Your task to perform on an android device: Check the weather Image 0: 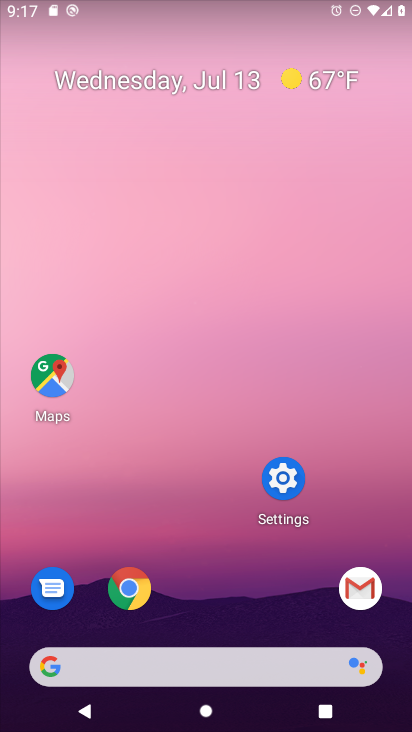
Step 0: click (186, 664)
Your task to perform on an android device: Check the weather Image 1: 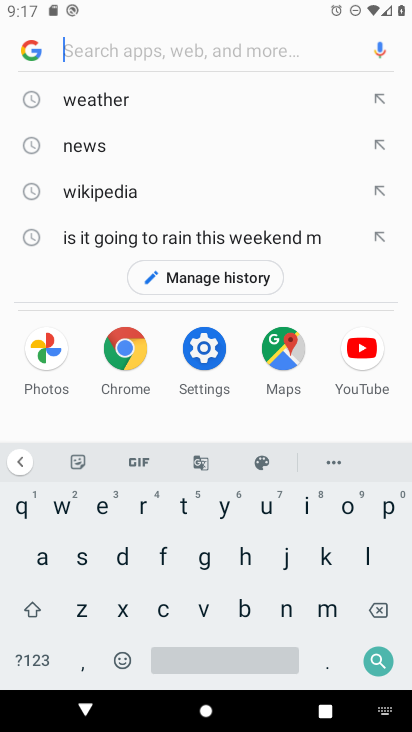
Step 1: click (98, 88)
Your task to perform on an android device: Check the weather Image 2: 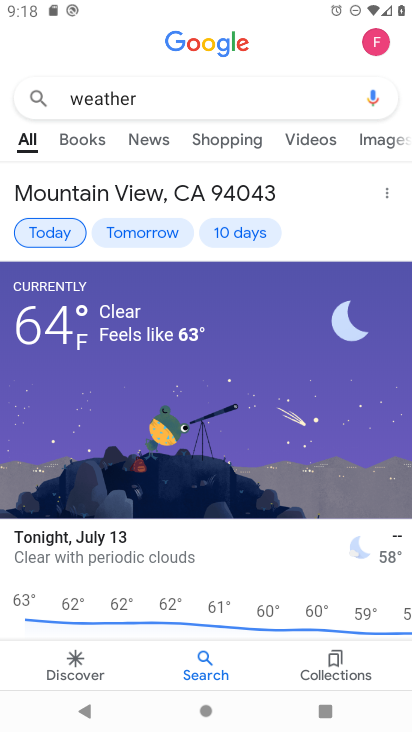
Step 2: task complete